Your task to perform on an android device: Search for seafood restaurants on Google Maps Image 0: 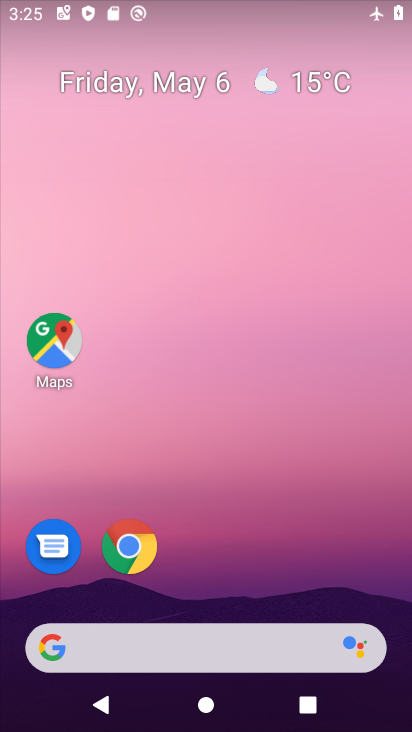
Step 0: click (57, 351)
Your task to perform on an android device: Search for seafood restaurants on Google Maps Image 1: 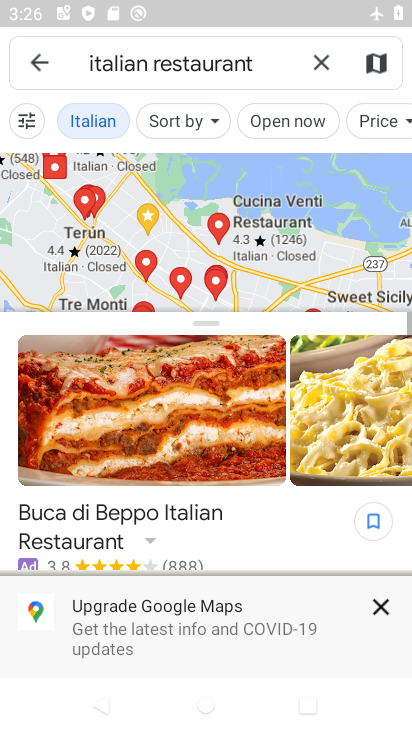
Step 1: click (321, 56)
Your task to perform on an android device: Search for seafood restaurants on Google Maps Image 2: 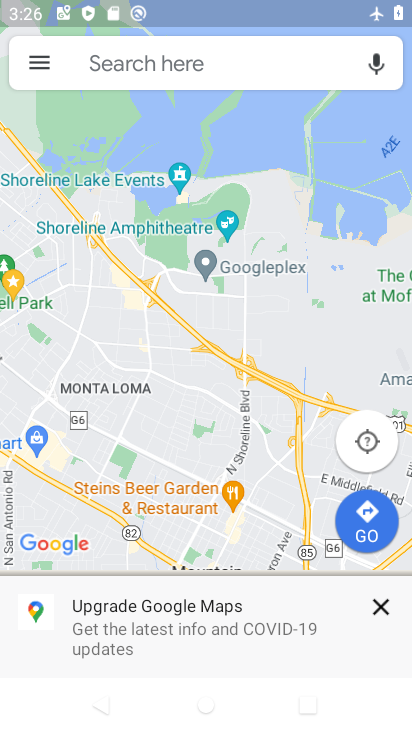
Step 2: click (146, 54)
Your task to perform on an android device: Search for seafood restaurants on Google Maps Image 3: 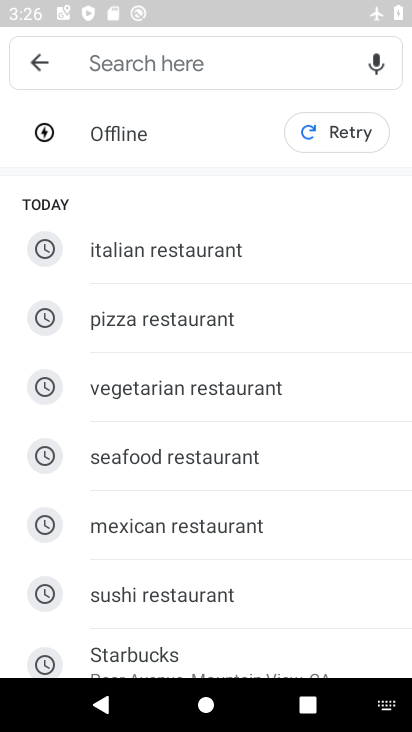
Step 3: click (332, 456)
Your task to perform on an android device: Search for seafood restaurants on Google Maps Image 4: 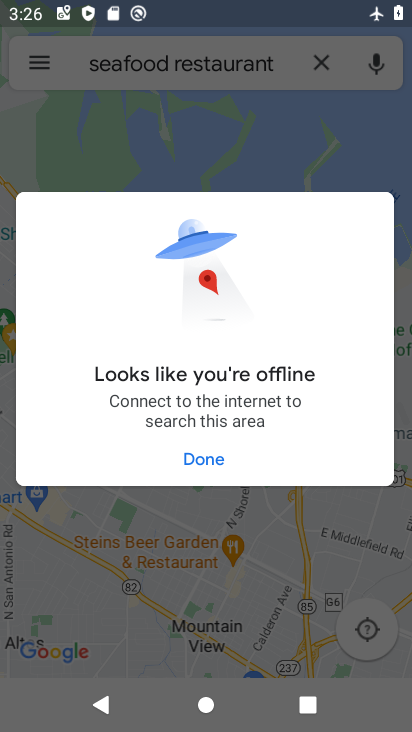
Step 4: click (207, 445)
Your task to perform on an android device: Search for seafood restaurants on Google Maps Image 5: 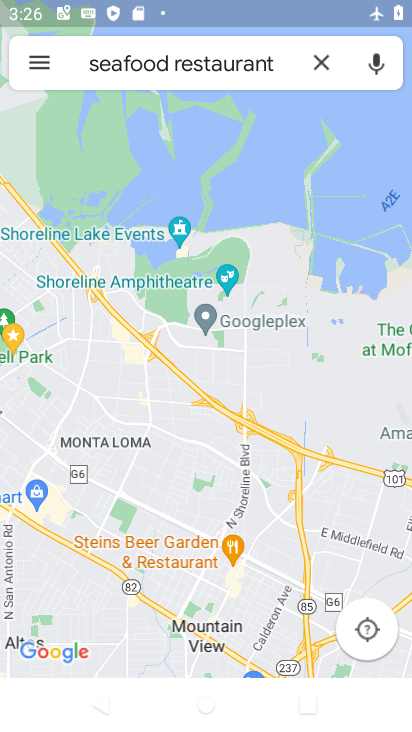
Step 5: task complete